Your task to perform on an android device: all mails in gmail Image 0: 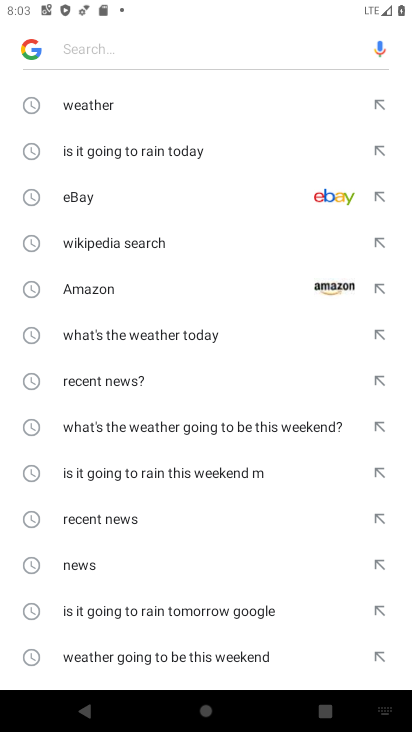
Step 0: press home button
Your task to perform on an android device: all mails in gmail Image 1: 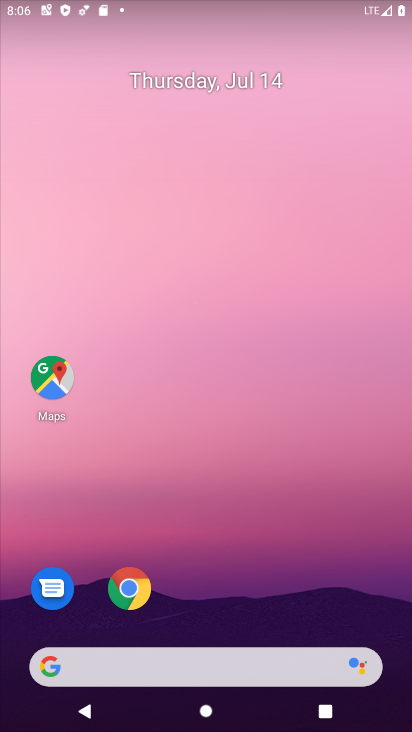
Step 1: drag from (375, 612) to (256, 39)
Your task to perform on an android device: all mails in gmail Image 2: 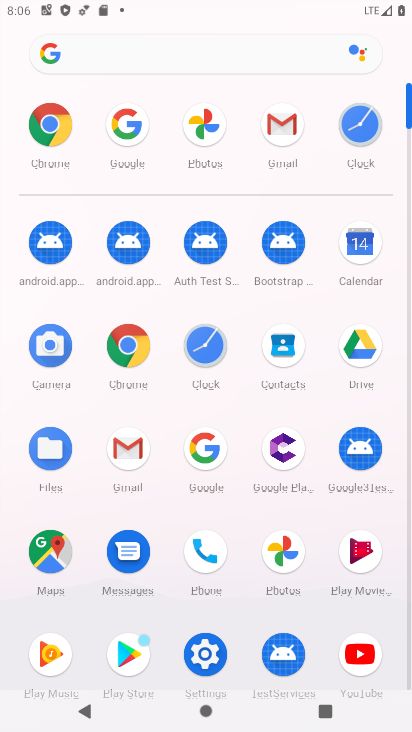
Step 2: click (112, 458)
Your task to perform on an android device: all mails in gmail Image 3: 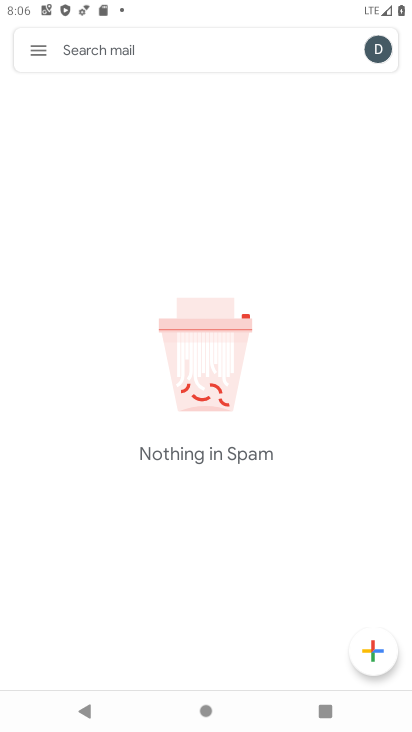
Step 3: click (22, 53)
Your task to perform on an android device: all mails in gmail Image 4: 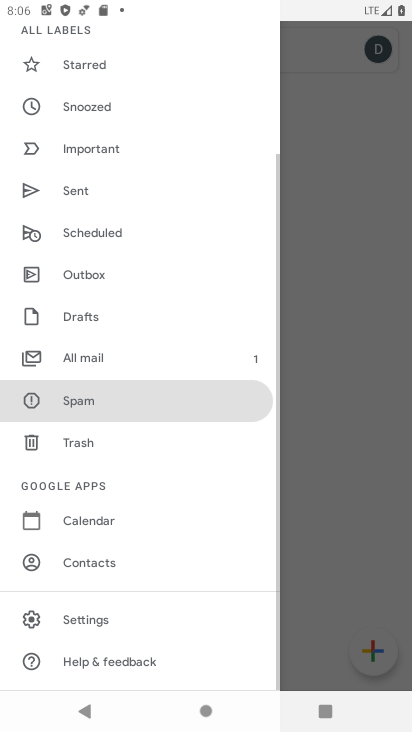
Step 4: click (78, 344)
Your task to perform on an android device: all mails in gmail Image 5: 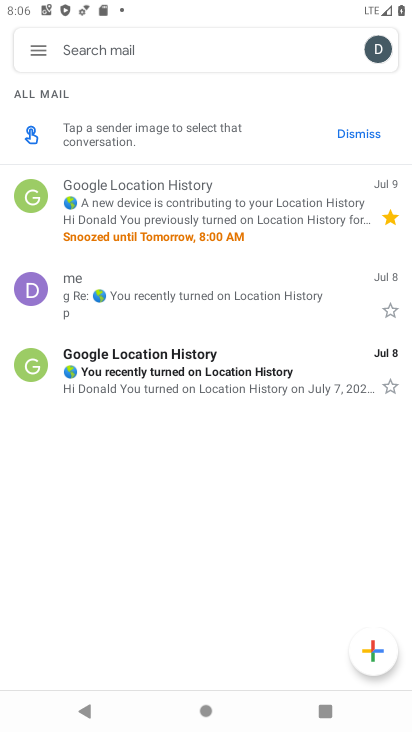
Step 5: task complete